Your task to perform on an android device: Show me productivity apps on the Play Store Image 0: 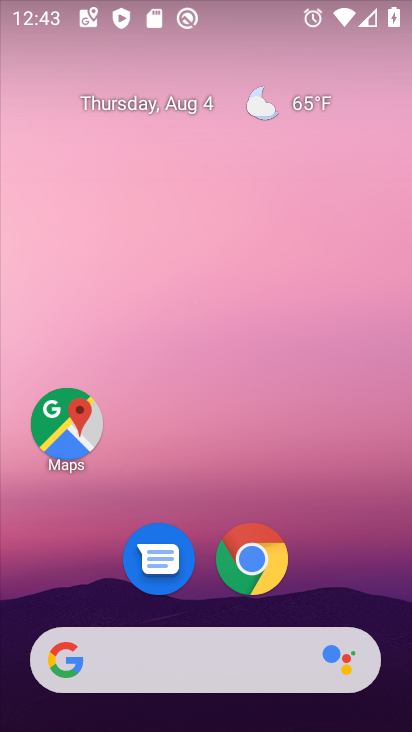
Step 0: drag from (211, 656) to (158, 74)
Your task to perform on an android device: Show me productivity apps on the Play Store Image 1: 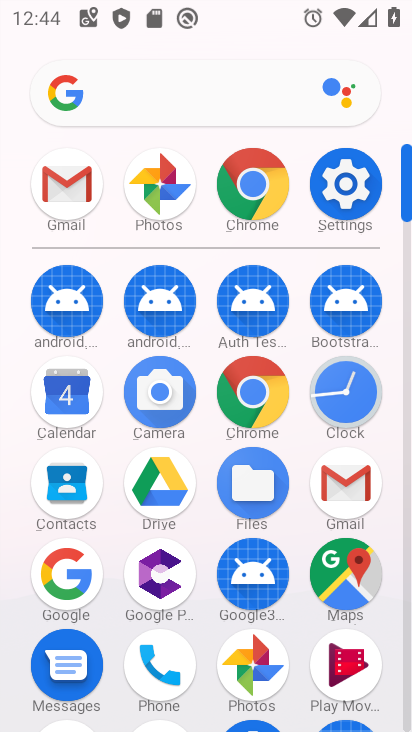
Step 1: drag from (194, 624) to (173, 292)
Your task to perform on an android device: Show me productivity apps on the Play Store Image 2: 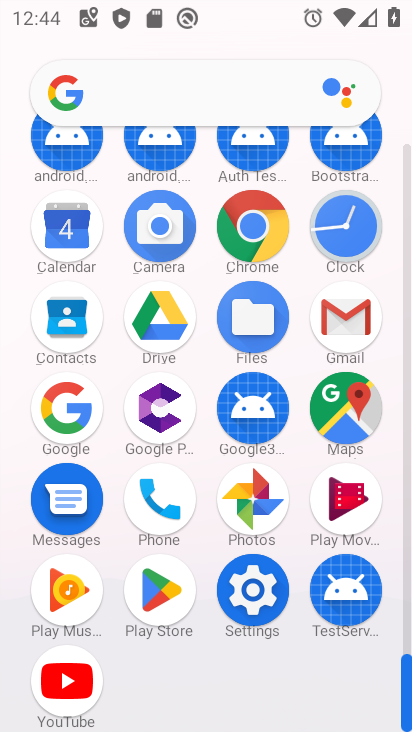
Step 2: click (163, 593)
Your task to perform on an android device: Show me productivity apps on the Play Store Image 3: 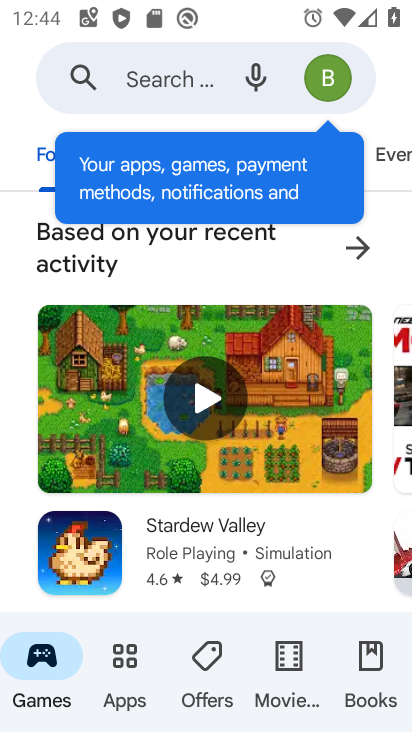
Step 3: click (122, 651)
Your task to perform on an android device: Show me productivity apps on the Play Store Image 4: 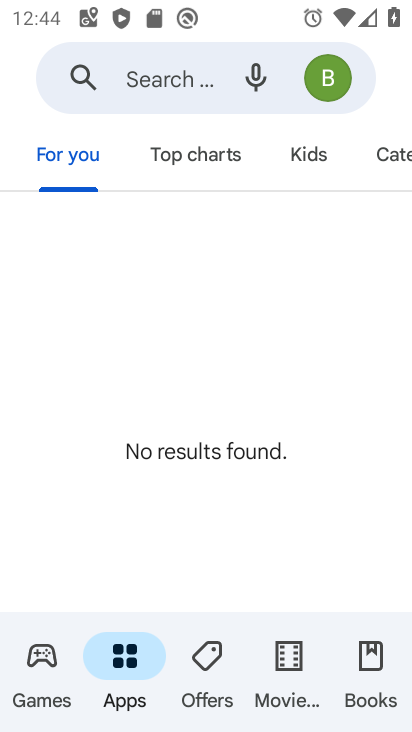
Step 4: click (388, 154)
Your task to perform on an android device: Show me productivity apps on the Play Store Image 5: 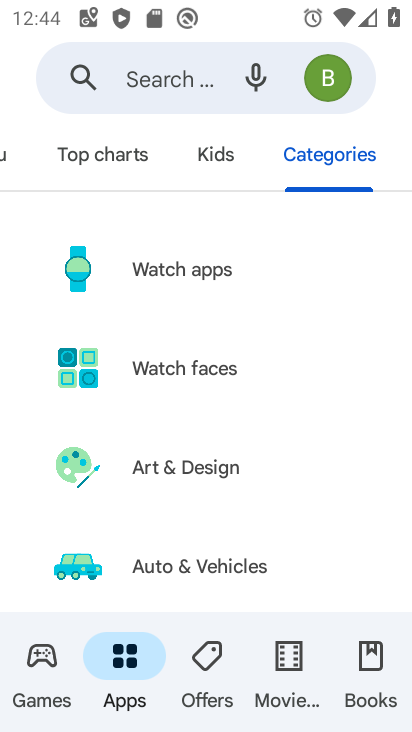
Step 5: drag from (194, 455) to (212, 354)
Your task to perform on an android device: Show me productivity apps on the Play Store Image 6: 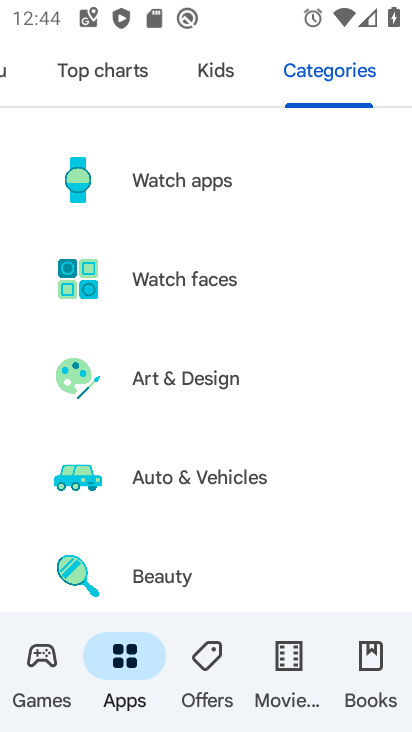
Step 6: drag from (187, 436) to (191, 350)
Your task to perform on an android device: Show me productivity apps on the Play Store Image 7: 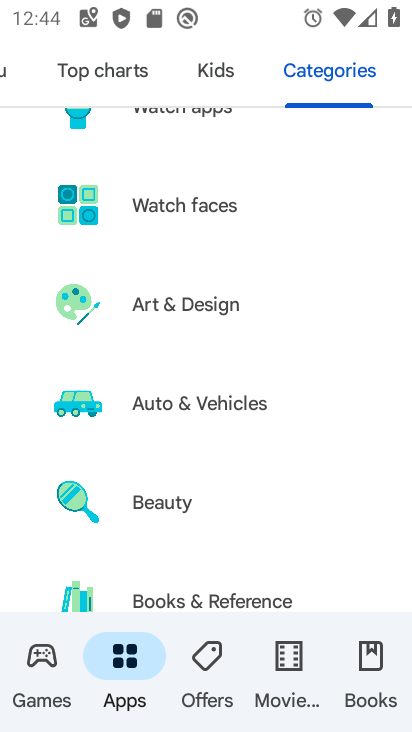
Step 7: drag from (198, 454) to (225, 372)
Your task to perform on an android device: Show me productivity apps on the Play Store Image 8: 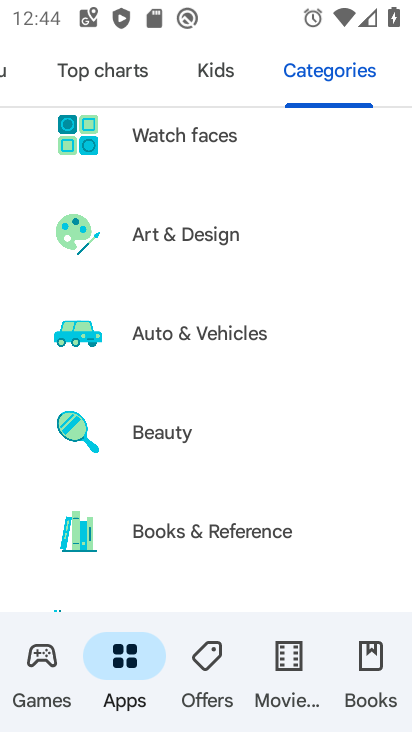
Step 8: drag from (164, 483) to (206, 390)
Your task to perform on an android device: Show me productivity apps on the Play Store Image 9: 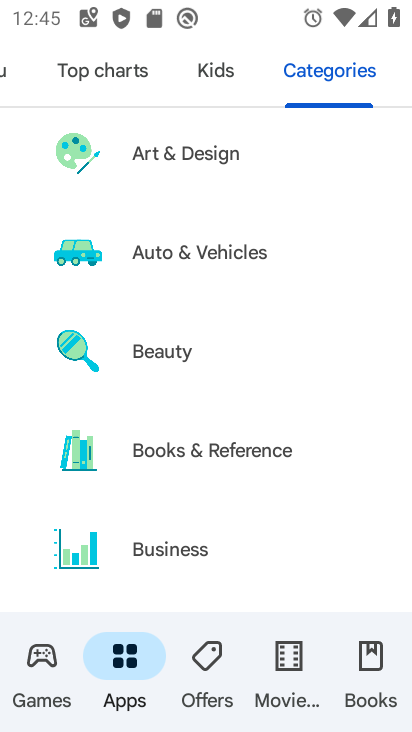
Step 9: drag from (202, 442) to (297, 318)
Your task to perform on an android device: Show me productivity apps on the Play Store Image 10: 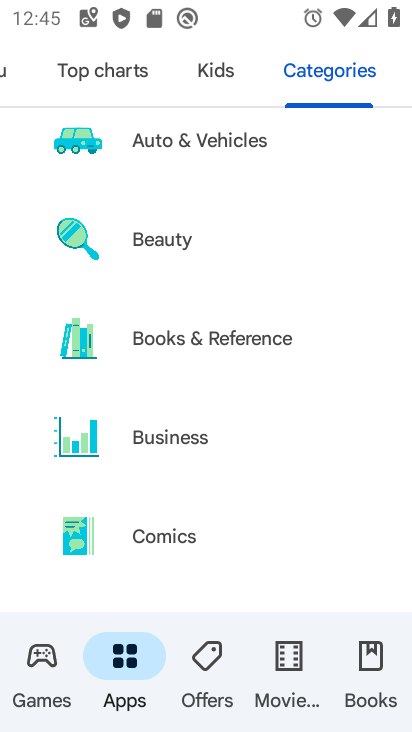
Step 10: drag from (182, 562) to (214, 450)
Your task to perform on an android device: Show me productivity apps on the Play Store Image 11: 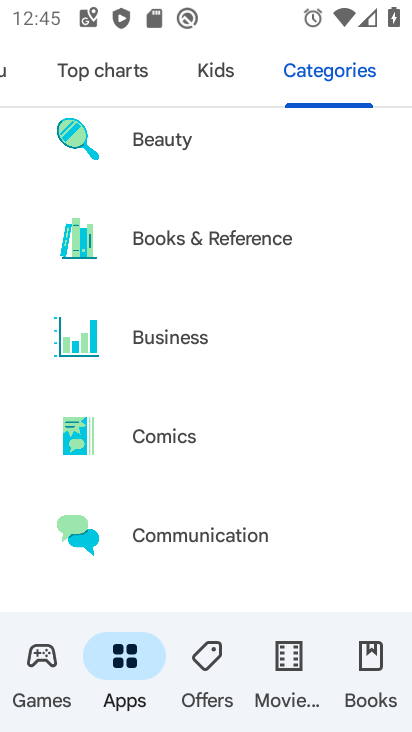
Step 11: drag from (139, 562) to (207, 415)
Your task to perform on an android device: Show me productivity apps on the Play Store Image 12: 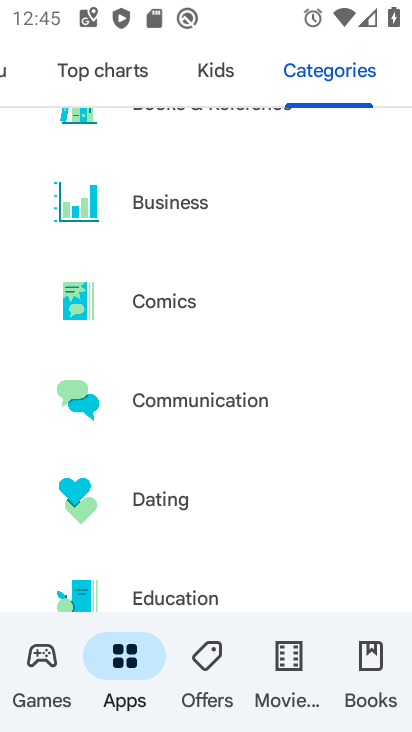
Step 12: drag from (159, 540) to (226, 364)
Your task to perform on an android device: Show me productivity apps on the Play Store Image 13: 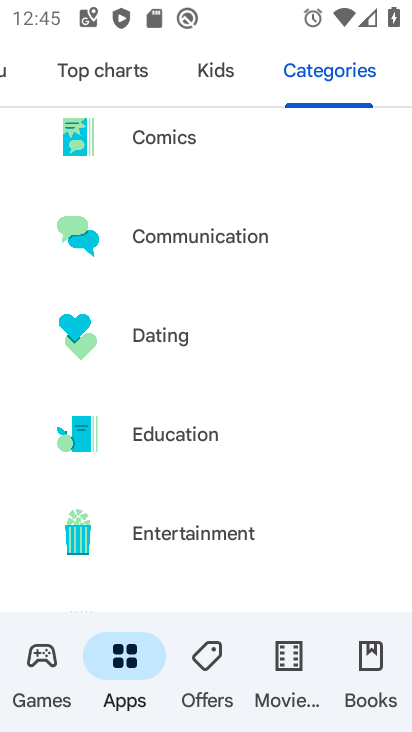
Step 13: drag from (166, 497) to (208, 341)
Your task to perform on an android device: Show me productivity apps on the Play Store Image 14: 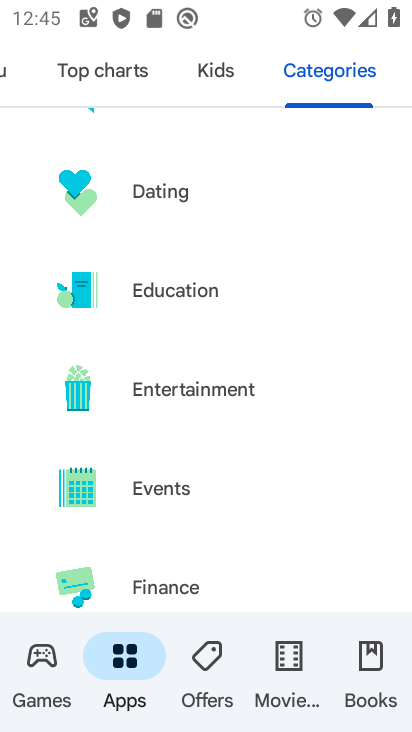
Step 14: drag from (152, 536) to (229, 418)
Your task to perform on an android device: Show me productivity apps on the Play Store Image 15: 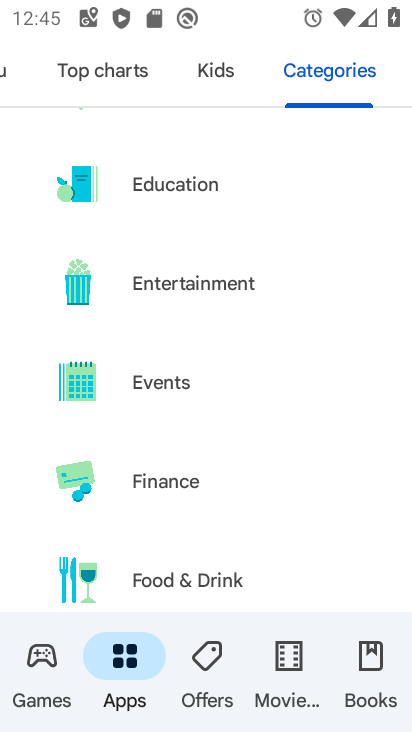
Step 15: drag from (154, 547) to (199, 430)
Your task to perform on an android device: Show me productivity apps on the Play Store Image 16: 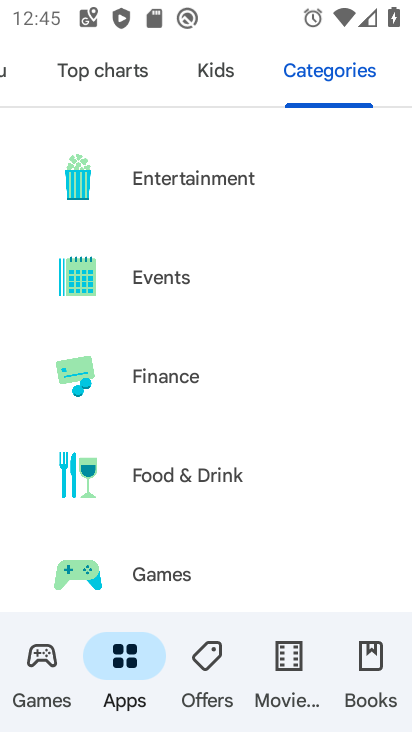
Step 16: drag from (149, 530) to (213, 399)
Your task to perform on an android device: Show me productivity apps on the Play Store Image 17: 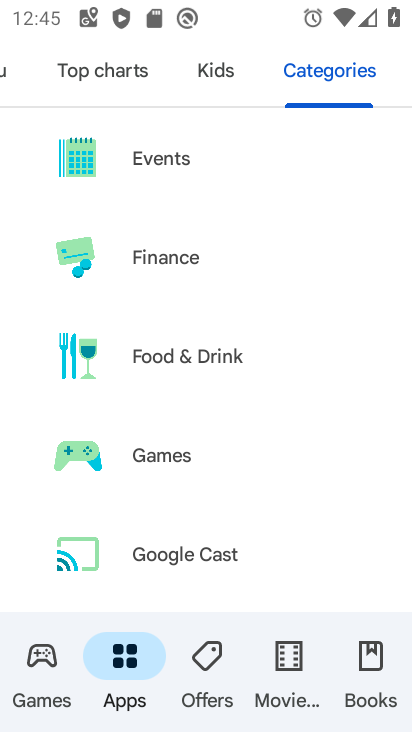
Step 17: drag from (154, 520) to (260, 362)
Your task to perform on an android device: Show me productivity apps on the Play Store Image 18: 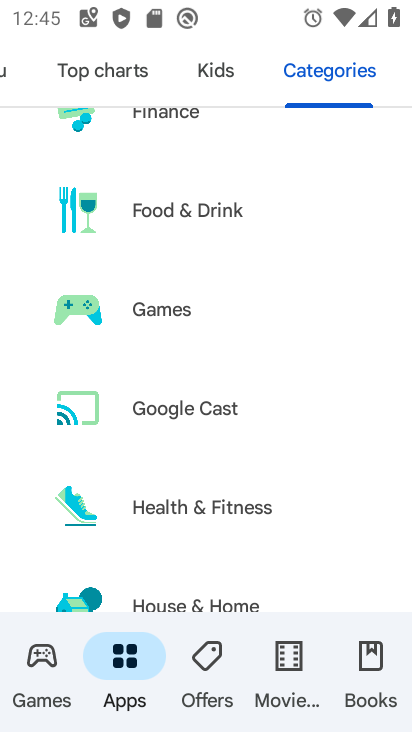
Step 18: drag from (159, 562) to (258, 441)
Your task to perform on an android device: Show me productivity apps on the Play Store Image 19: 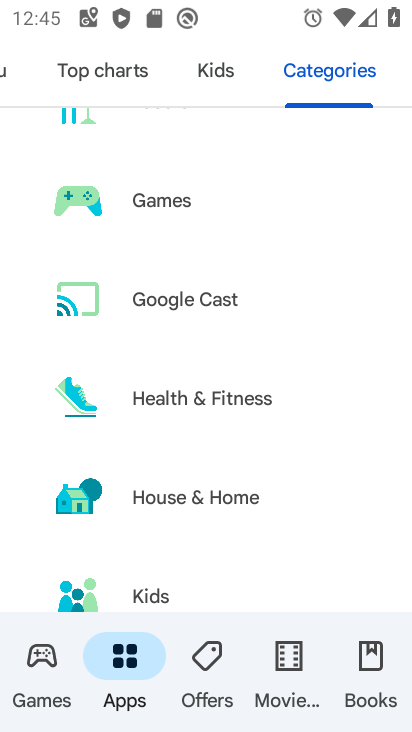
Step 19: drag from (174, 550) to (238, 446)
Your task to perform on an android device: Show me productivity apps on the Play Store Image 20: 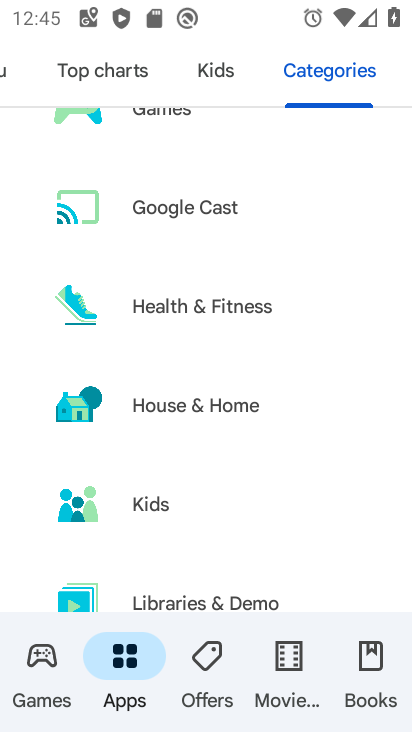
Step 20: drag from (152, 545) to (247, 438)
Your task to perform on an android device: Show me productivity apps on the Play Store Image 21: 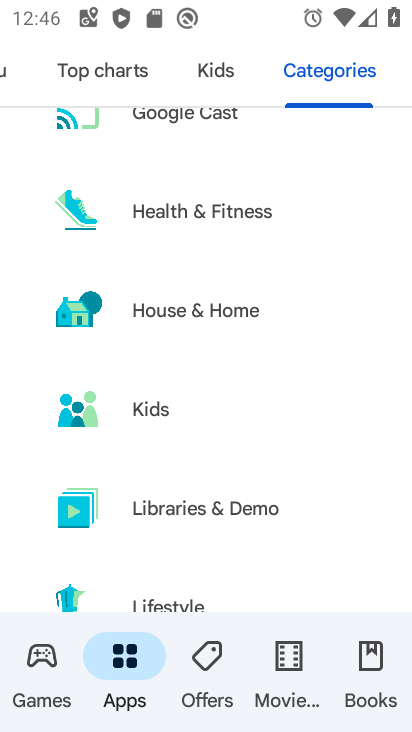
Step 21: drag from (160, 559) to (227, 404)
Your task to perform on an android device: Show me productivity apps on the Play Store Image 22: 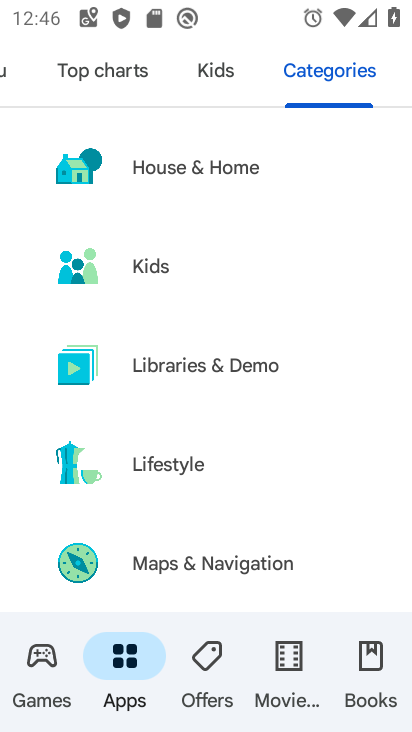
Step 22: drag from (160, 533) to (229, 418)
Your task to perform on an android device: Show me productivity apps on the Play Store Image 23: 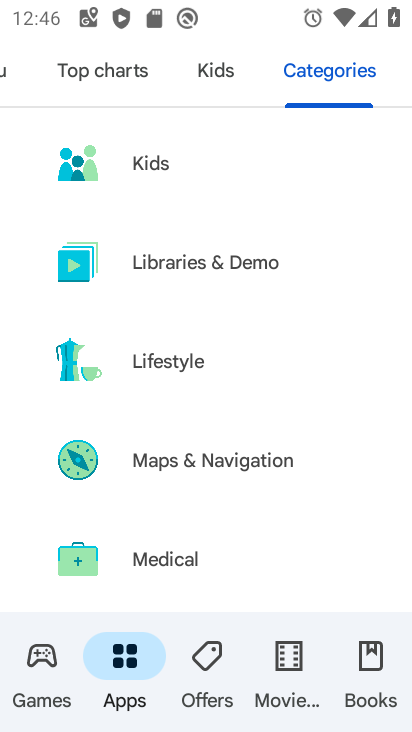
Step 23: drag from (166, 522) to (245, 368)
Your task to perform on an android device: Show me productivity apps on the Play Store Image 24: 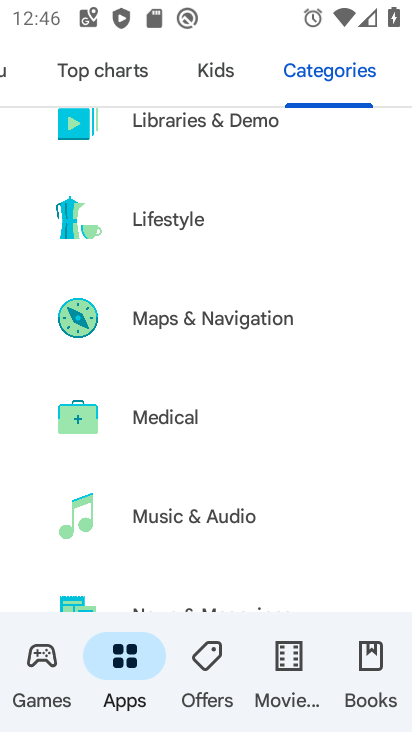
Step 24: drag from (173, 554) to (242, 416)
Your task to perform on an android device: Show me productivity apps on the Play Store Image 25: 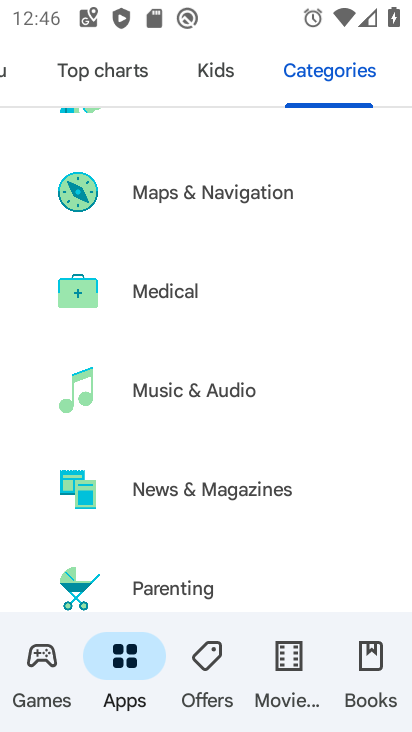
Step 25: drag from (195, 547) to (266, 451)
Your task to perform on an android device: Show me productivity apps on the Play Store Image 26: 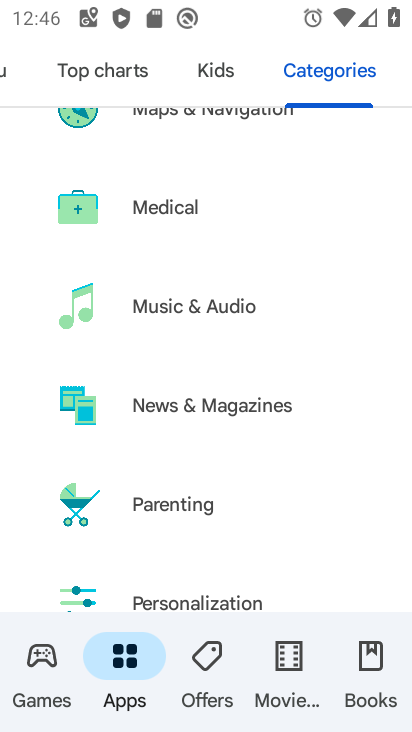
Step 26: drag from (181, 560) to (259, 427)
Your task to perform on an android device: Show me productivity apps on the Play Store Image 27: 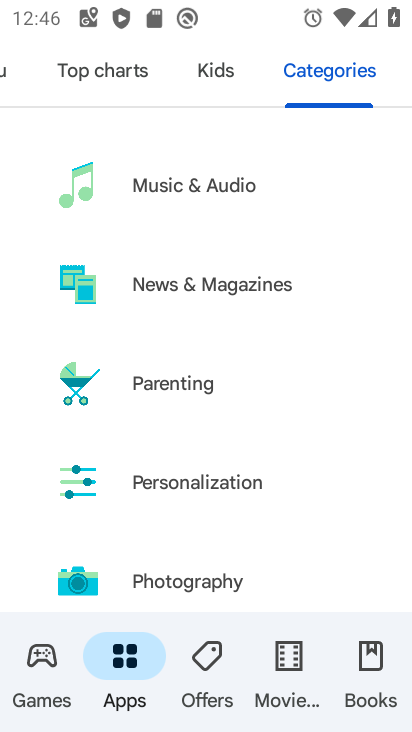
Step 27: drag from (144, 544) to (242, 404)
Your task to perform on an android device: Show me productivity apps on the Play Store Image 28: 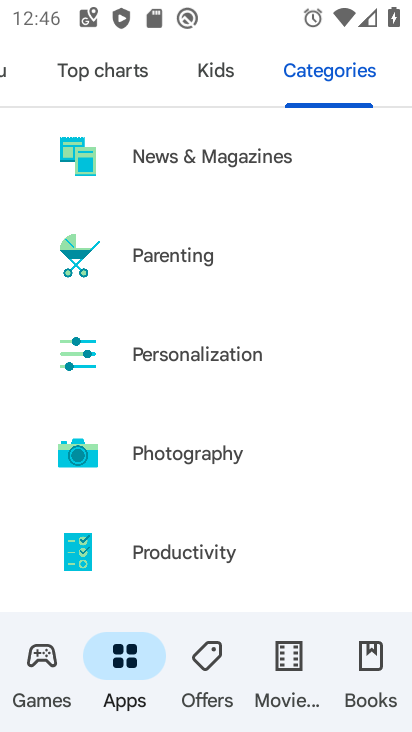
Step 28: click (173, 560)
Your task to perform on an android device: Show me productivity apps on the Play Store Image 29: 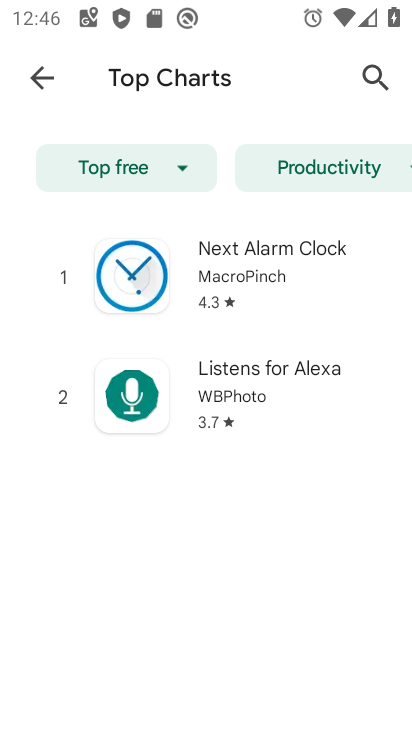
Step 29: task complete